Your task to perform on an android device: Open the map Image 0: 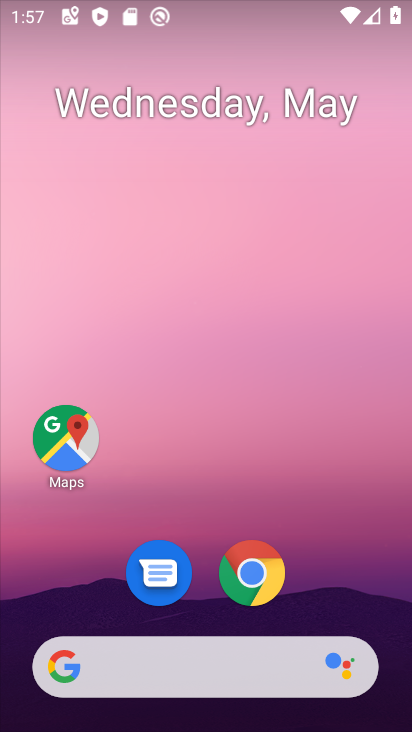
Step 0: click (75, 447)
Your task to perform on an android device: Open the map Image 1: 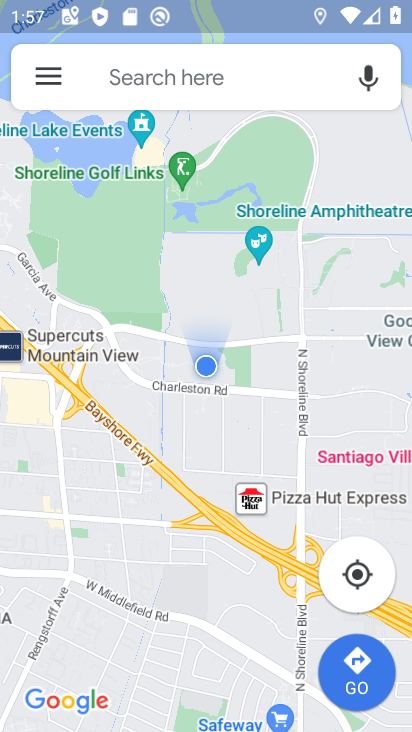
Step 1: task complete